Your task to perform on an android device: How much does a 2 bedroom apartment rent for in New York? Image 0: 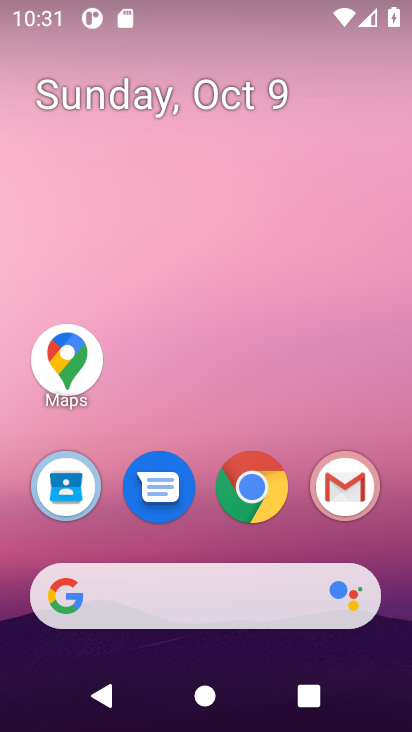
Step 0: click (257, 484)
Your task to perform on an android device: How much does a 2 bedroom apartment rent for in New York? Image 1: 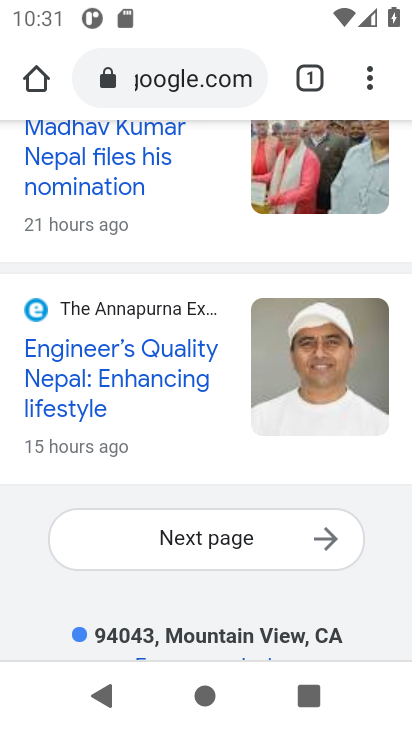
Step 1: click (194, 81)
Your task to perform on an android device: How much does a 2 bedroom apartment rent for in New York? Image 2: 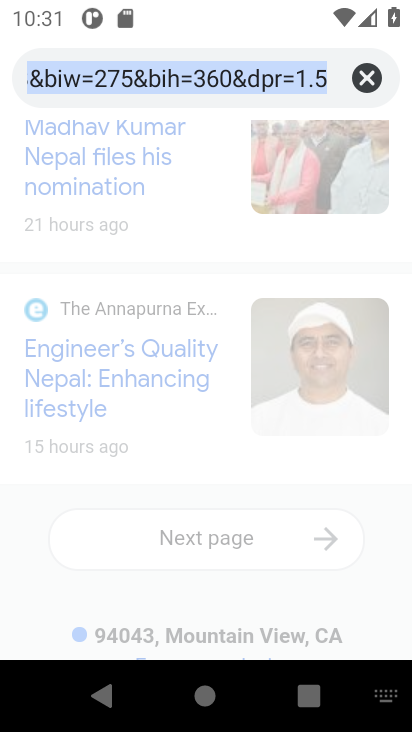
Step 2: type "2 bedroom apartment rent in new york"
Your task to perform on an android device: How much does a 2 bedroom apartment rent for in New York? Image 3: 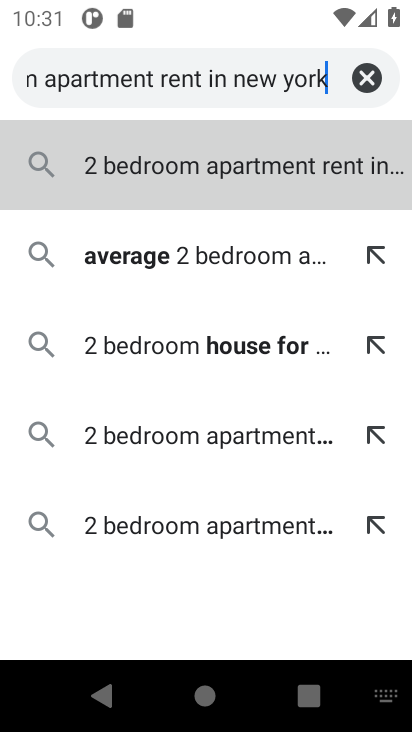
Step 3: type ""
Your task to perform on an android device: How much does a 2 bedroom apartment rent for in New York? Image 4: 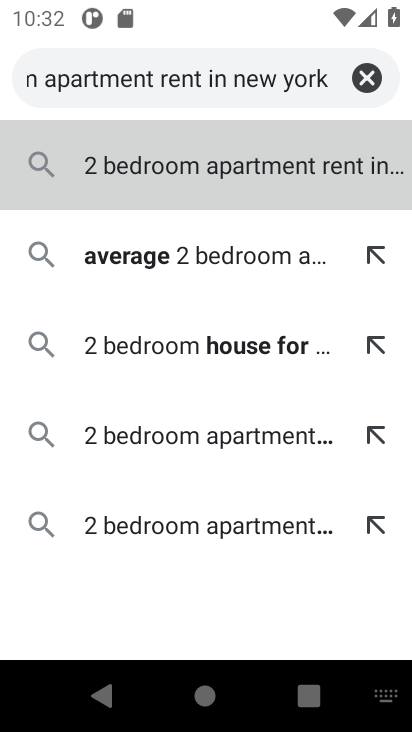
Step 4: press enter
Your task to perform on an android device: How much does a 2 bedroom apartment rent for in New York? Image 5: 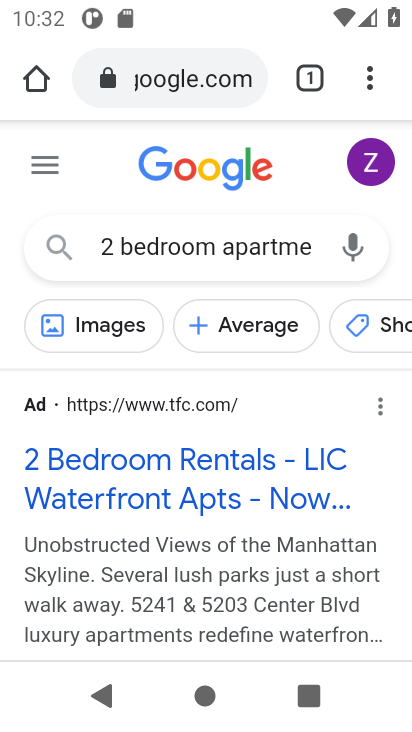
Step 5: drag from (199, 578) to (216, 189)
Your task to perform on an android device: How much does a 2 bedroom apartment rent for in New York? Image 6: 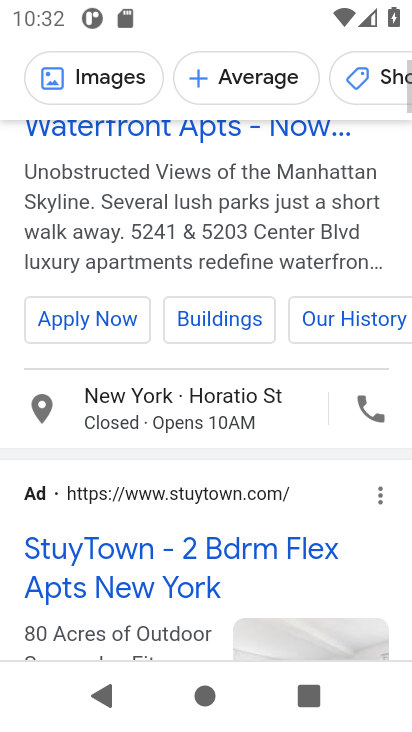
Step 6: drag from (232, 572) to (218, 257)
Your task to perform on an android device: How much does a 2 bedroom apartment rent for in New York? Image 7: 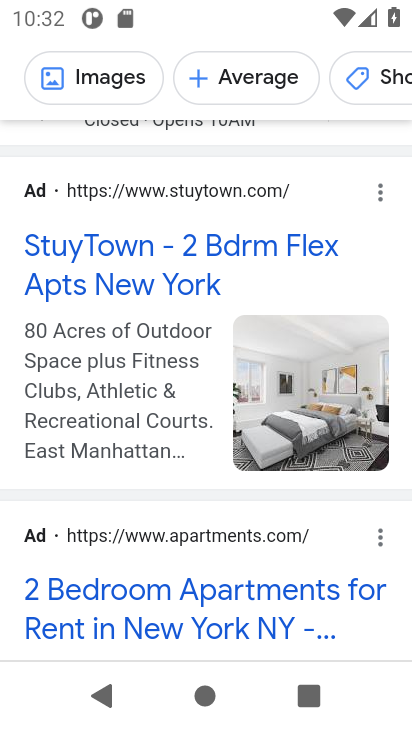
Step 7: drag from (200, 464) to (193, 253)
Your task to perform on an android device: How much does a 2 bedroom apartment rent for in New York? Image 8: 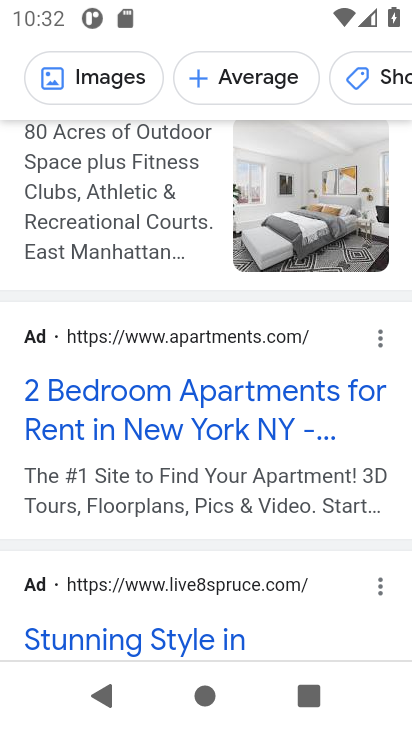
Step 8: click (176, 405)
Your task to perform on an android device: How much does a 2 bedroom apartment rent for in New York? Image 9: 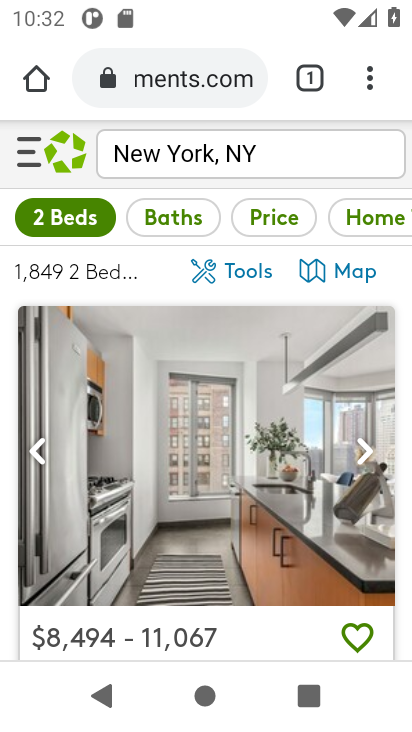
Step 9: task complete